Your task to perform on an android device: uninstall "Facebook Messenger" Image 0: 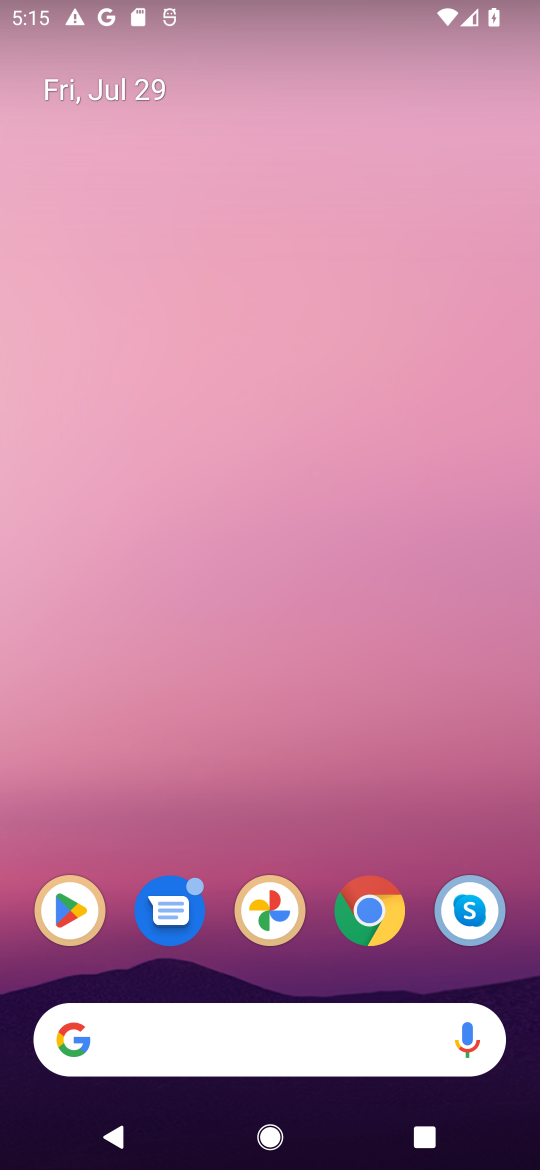
Step 0: drag from (287, 1006) to (260, 279)
Your task to perform on an android device: uninstall "Facebook Messenger" Image 1: 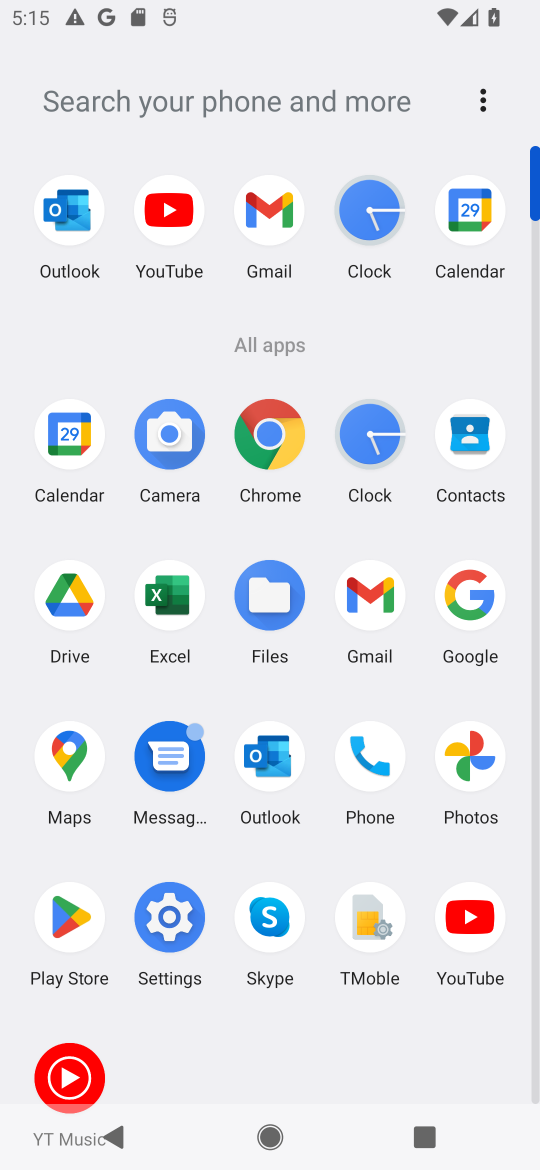
Step 1: click (64, 916)
Your task to perform on an android device: uninstall "Facebook Messenger" Image 2: 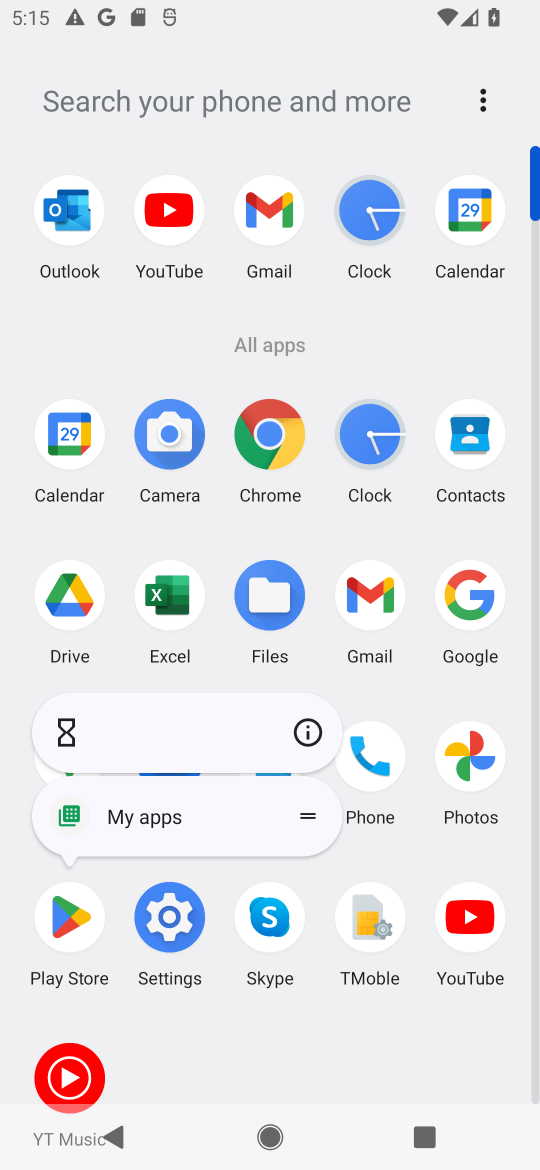
Step 2: click (64, 916)
Your task to perform on an android device: uninstall "Facebook Messenger" Image 3: 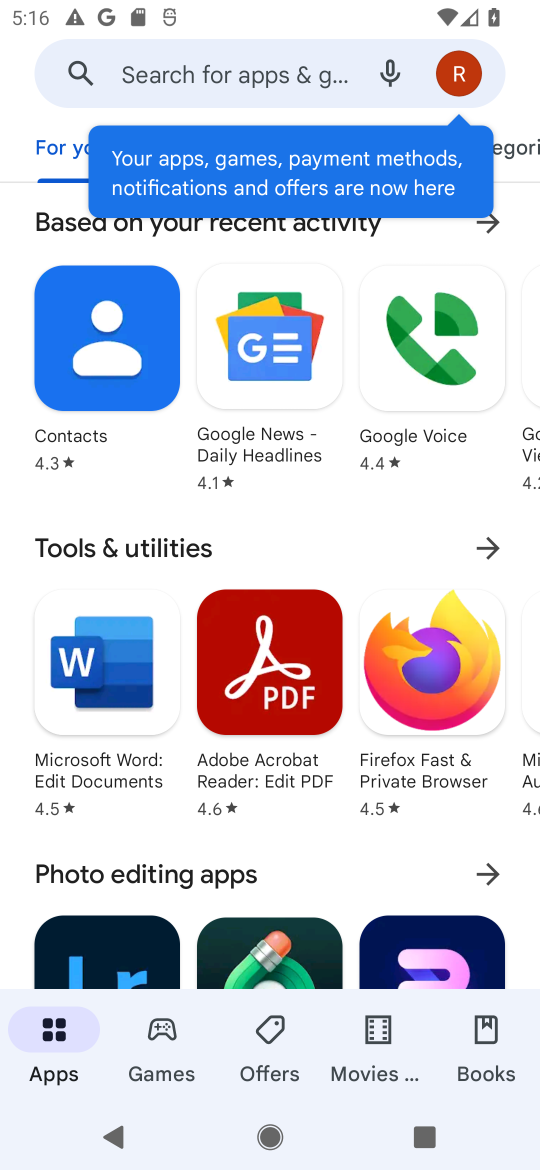
Step 3: click (142, 79)
Your task to perform on an android device: uninstall "Facebook Messenger" Image 4: 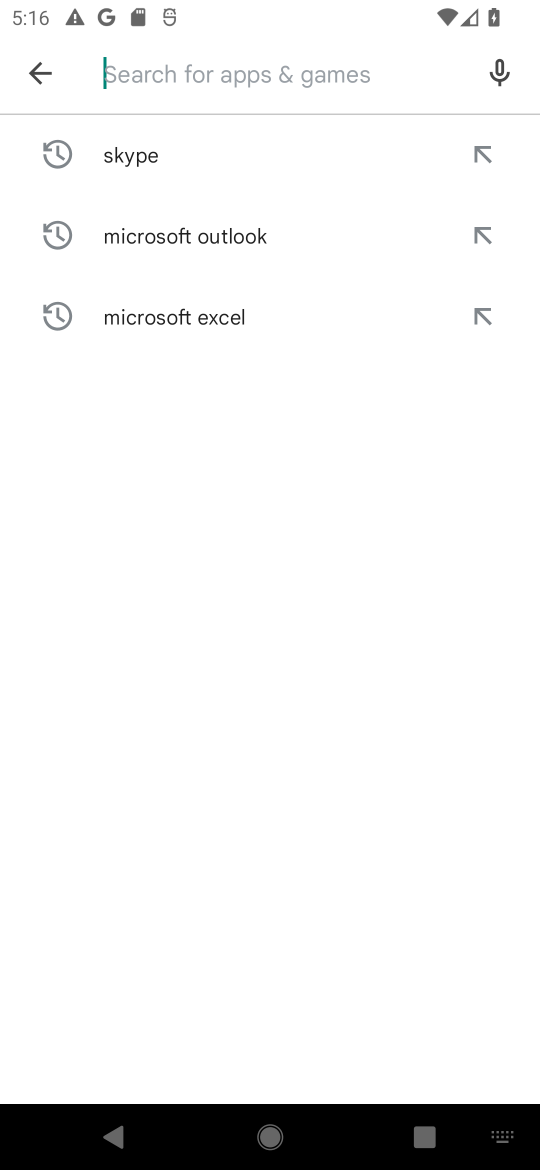
Step 4: type "Facebook Messenger"
Your task to perform on an android device: uninstall "Facebook Messenger" Image 5: 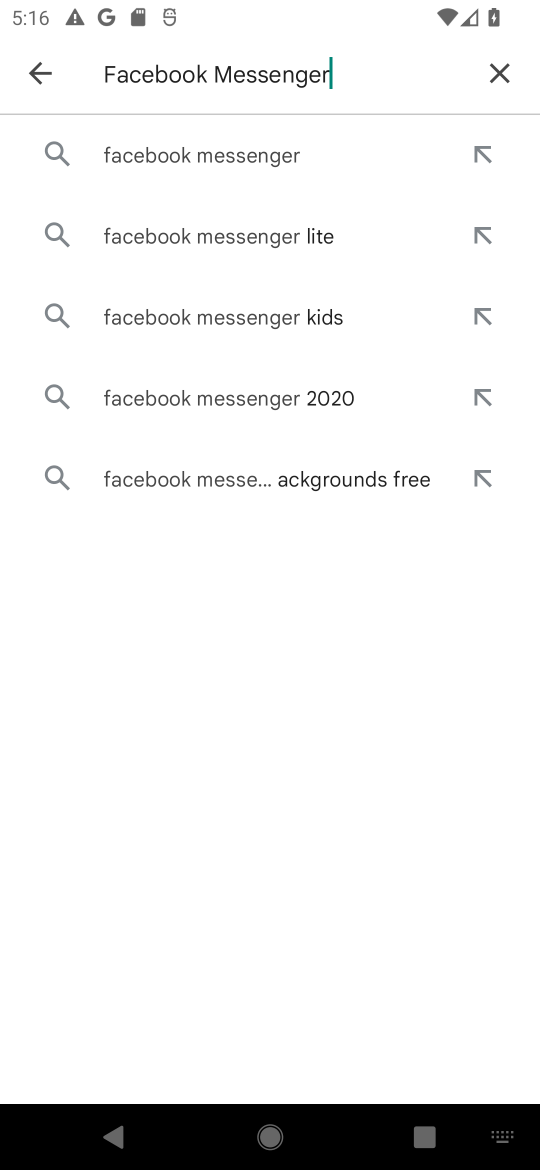
Step 5: click (176, 160)
Your task to perform on an android device: uninstall "Facebook Messenger" Image 6: 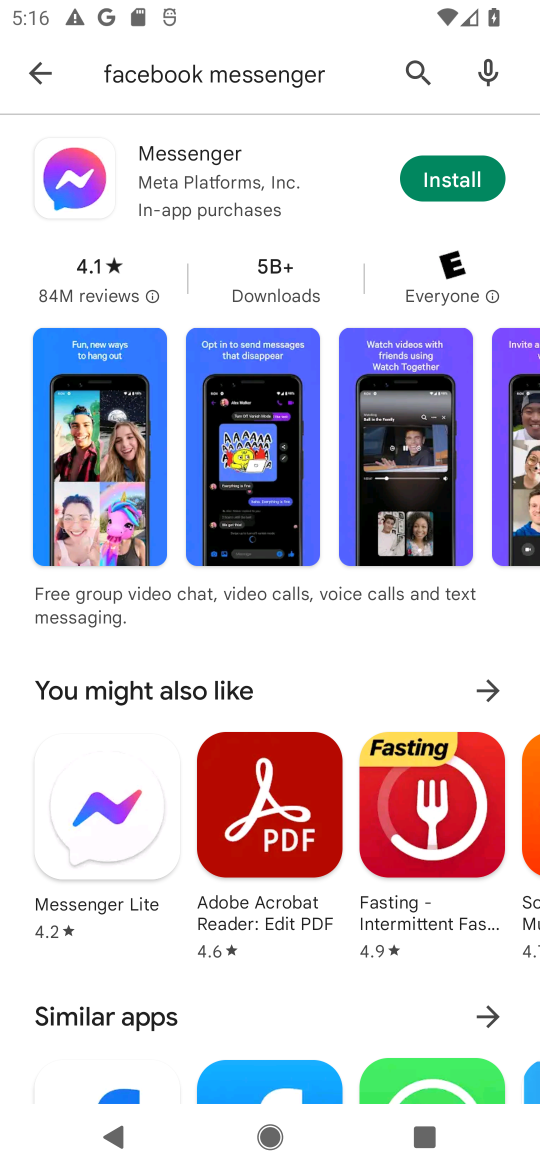
Step 6: click (455, 184)
Your task to perform on an android device: uninstall "Facebook Messenger" Image 7: 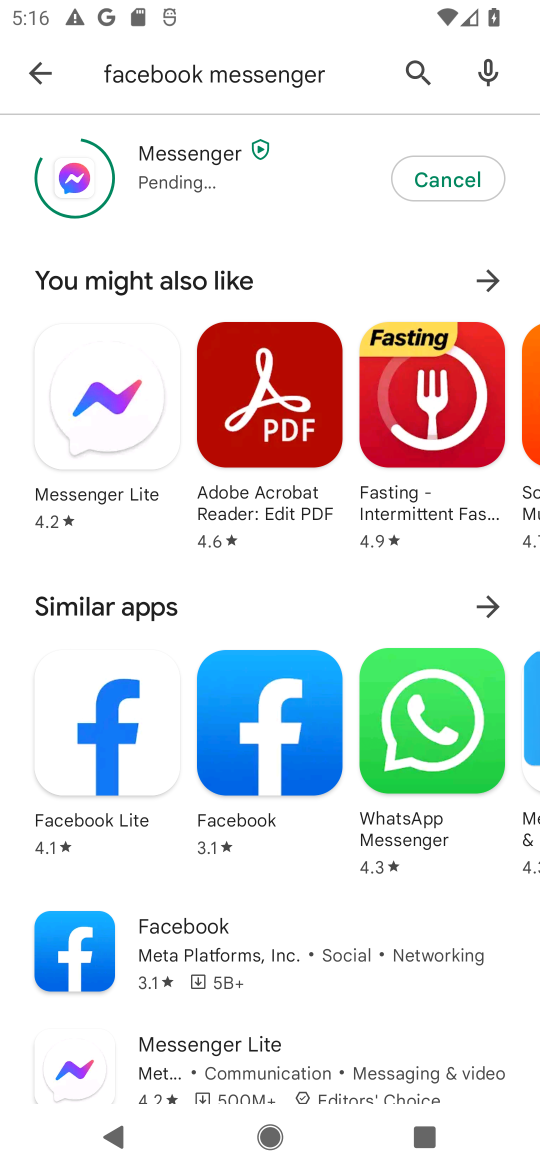
Step 7: click (436, 172)
Your task to perform on an android device: uninstall "Facebook Messenger" Image 8: 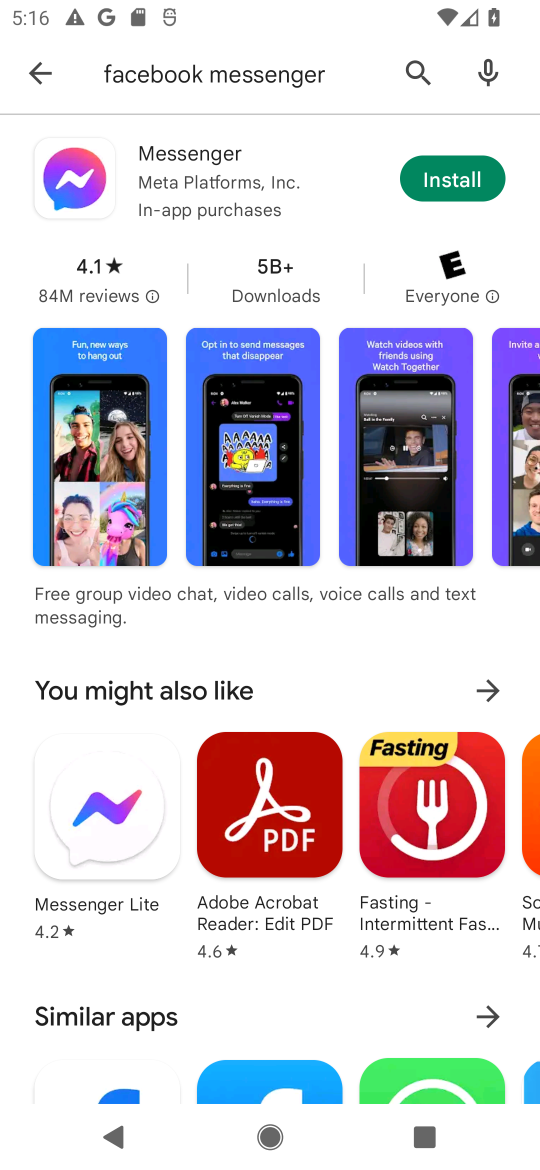
Step 8: task complete